Your task to perform on an android device: Play the new Beyonce video on YouTube Image 0: 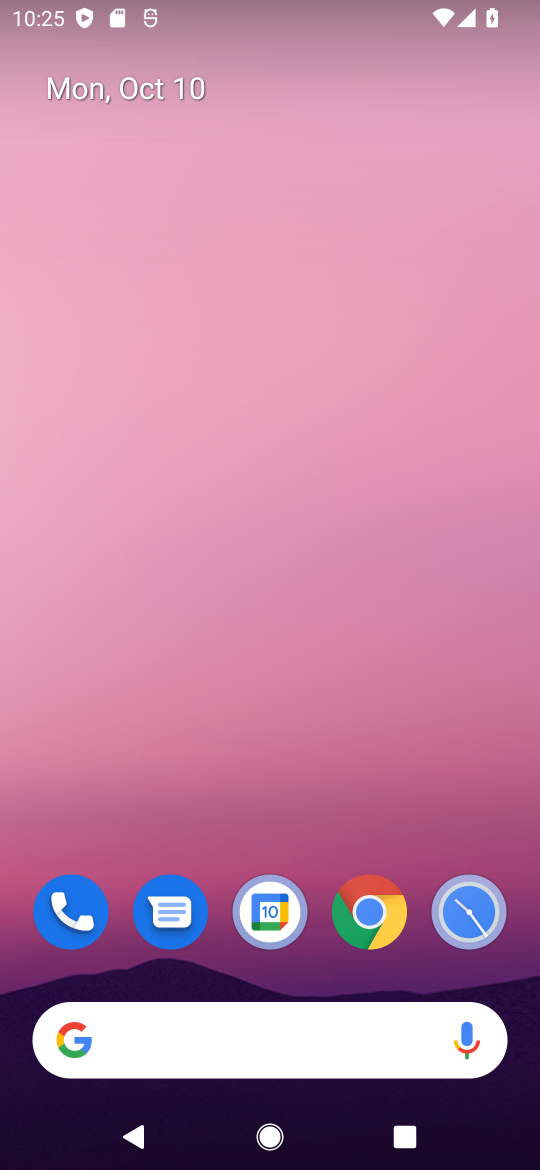
Step 0: task complete